Your task to perform on an android device: Search for the new lego star wars 2021 on Target Image 0: 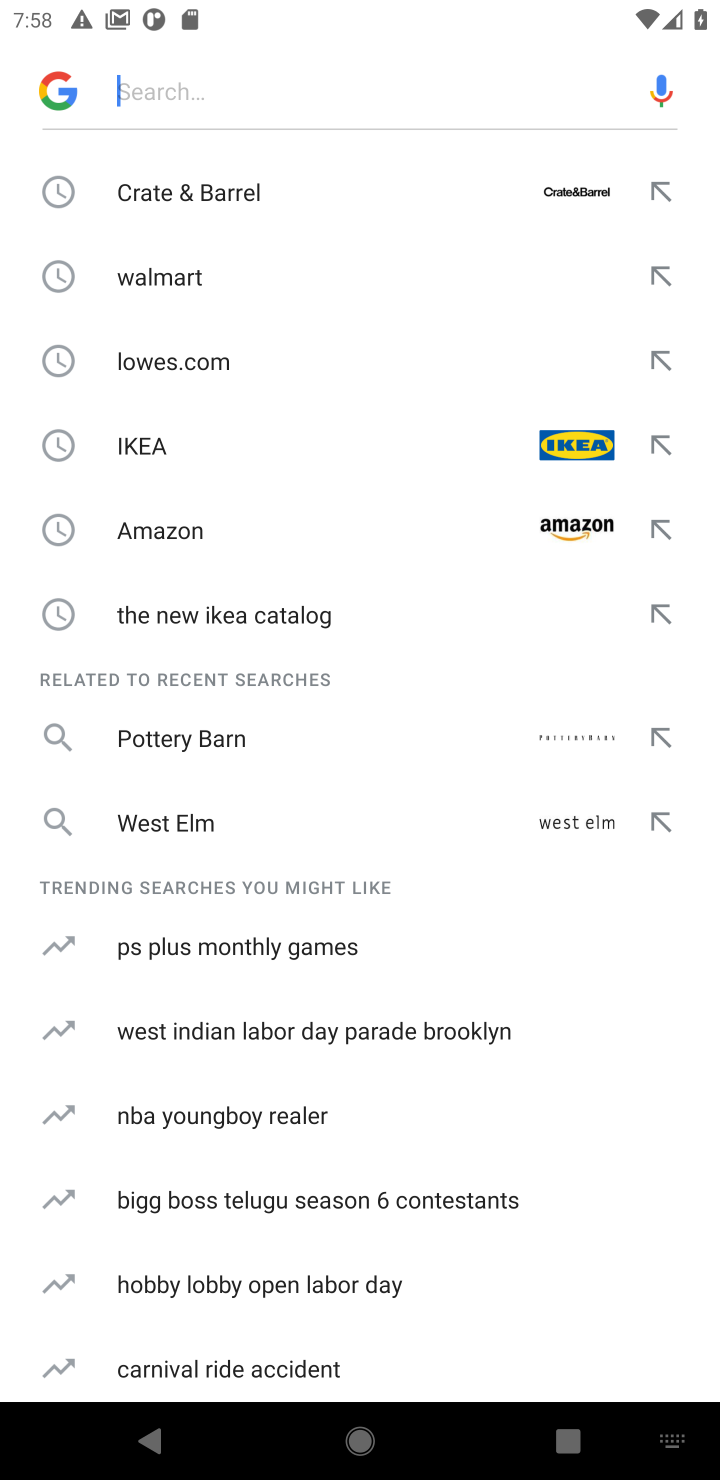
Step 0: type "target"
Your task to perform on an android device: Search for the new lego star wars 2021 on Target Image 1: 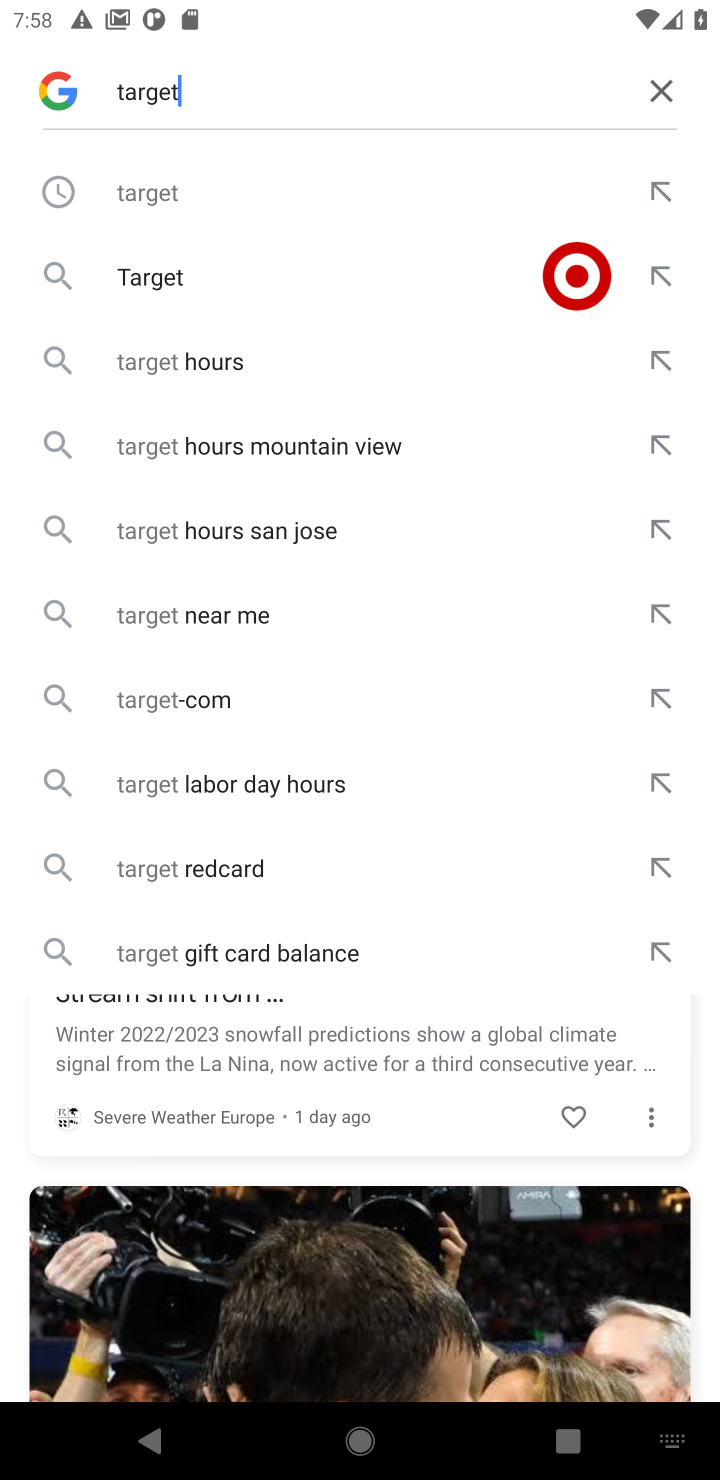
Step 1: click (124, 216)
Your task to perform on an android device: Search for the new lego star wars 2021 on Target Image 2: 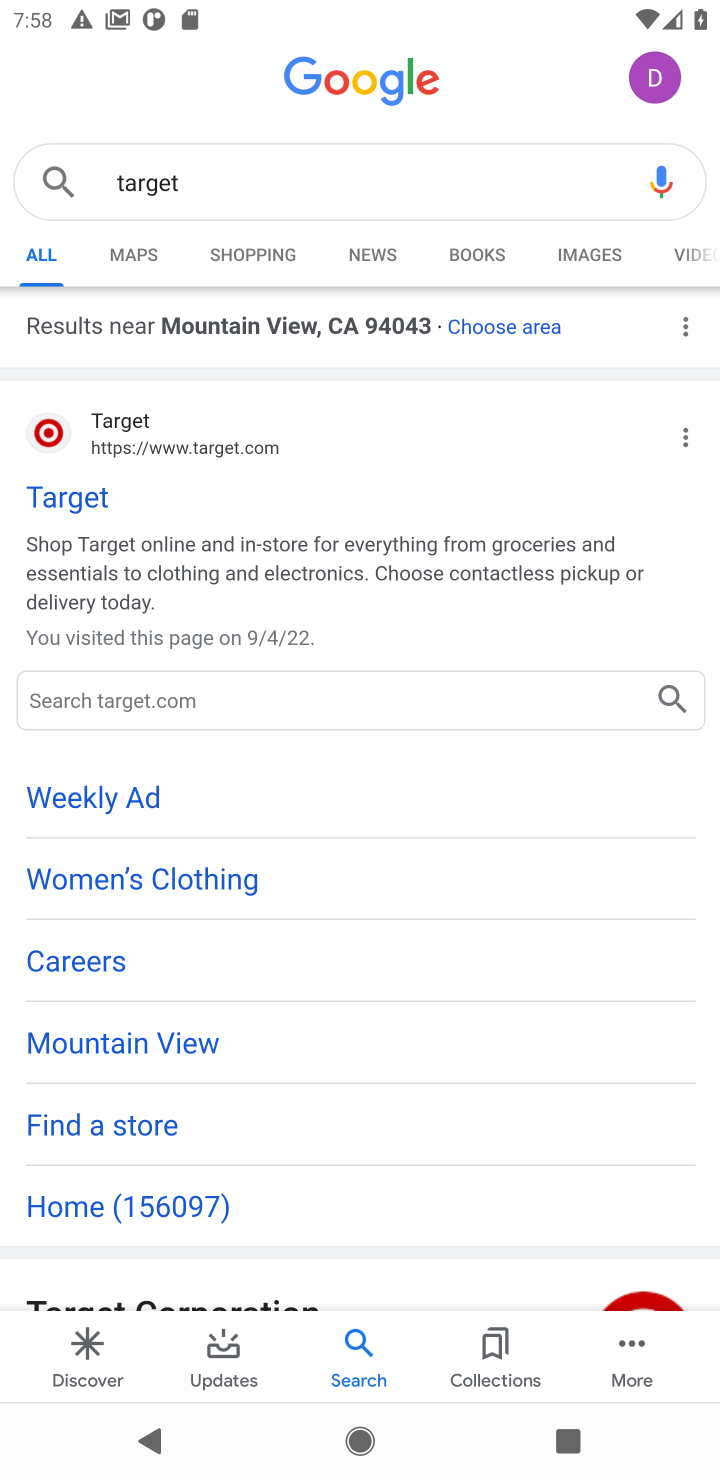
Step 2: click (50, 495)
Your task to perform on an android device: Search for the new lego star wars 2021 on Target Image 3: 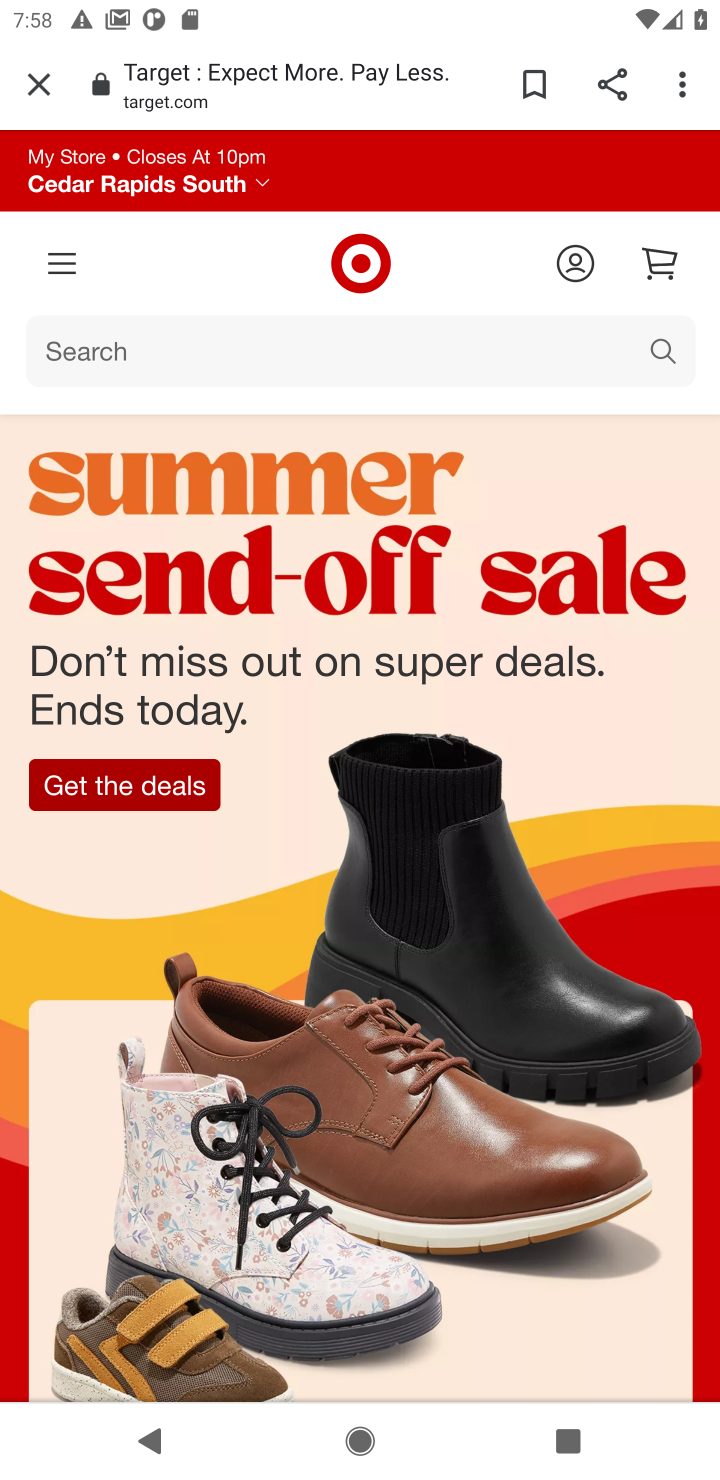
Step 3: click (248, 344)
Your task to perform on an android device: Search for the new lego star wars 2021 on Target Image 4: 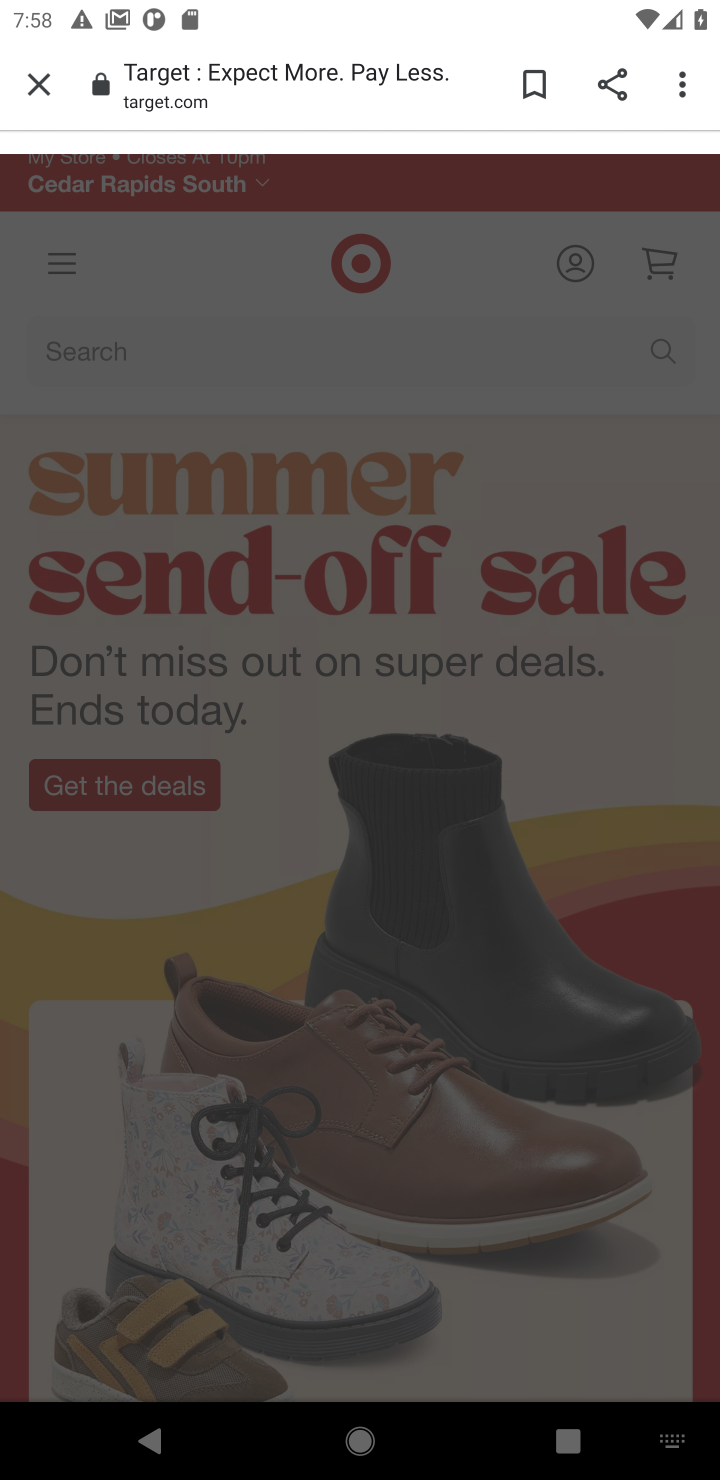
Step 4: click (247, 340)
Your task to perform on an android device: Search for the new lego star wars 2021 on Target Image 5: 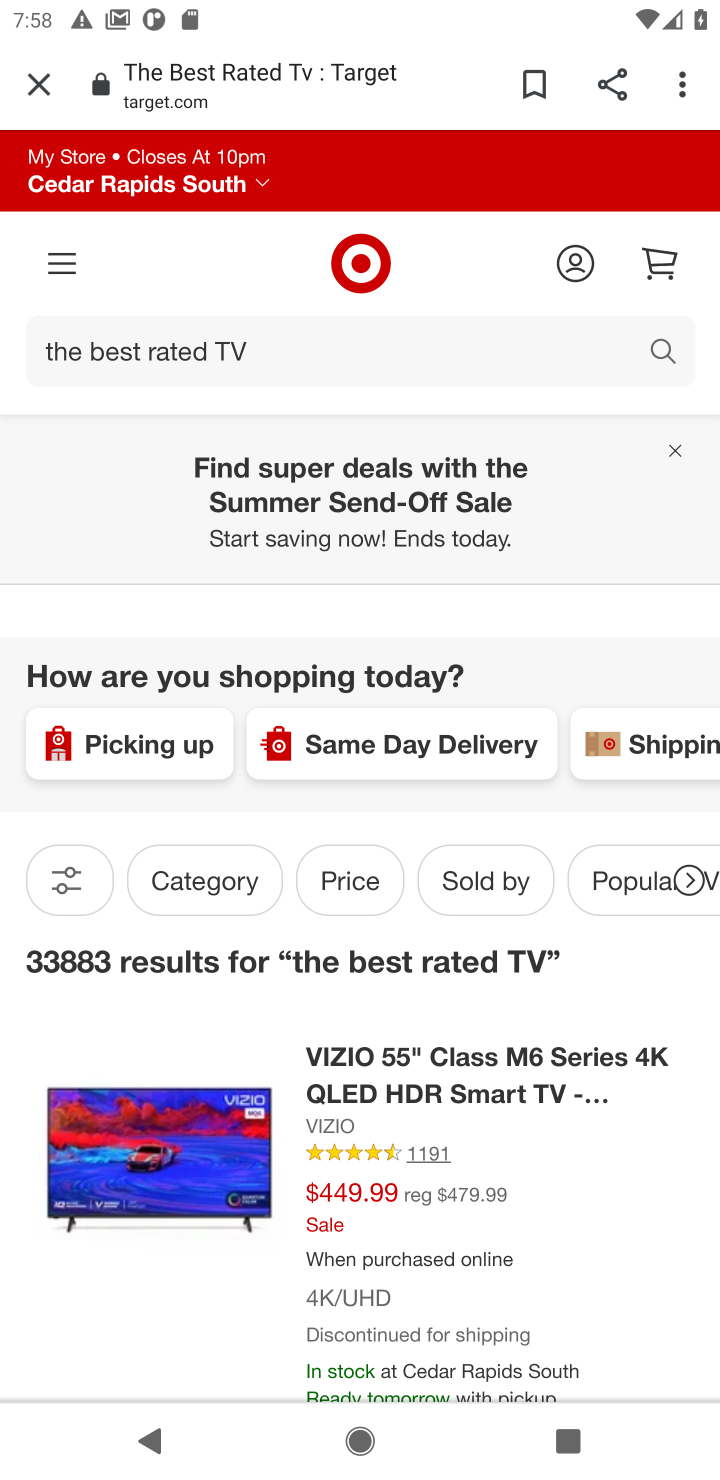
Step 5: click (383, 354)
Your task to perform on an android device: Search for the new lego star wars 2021 on Target Image 6: 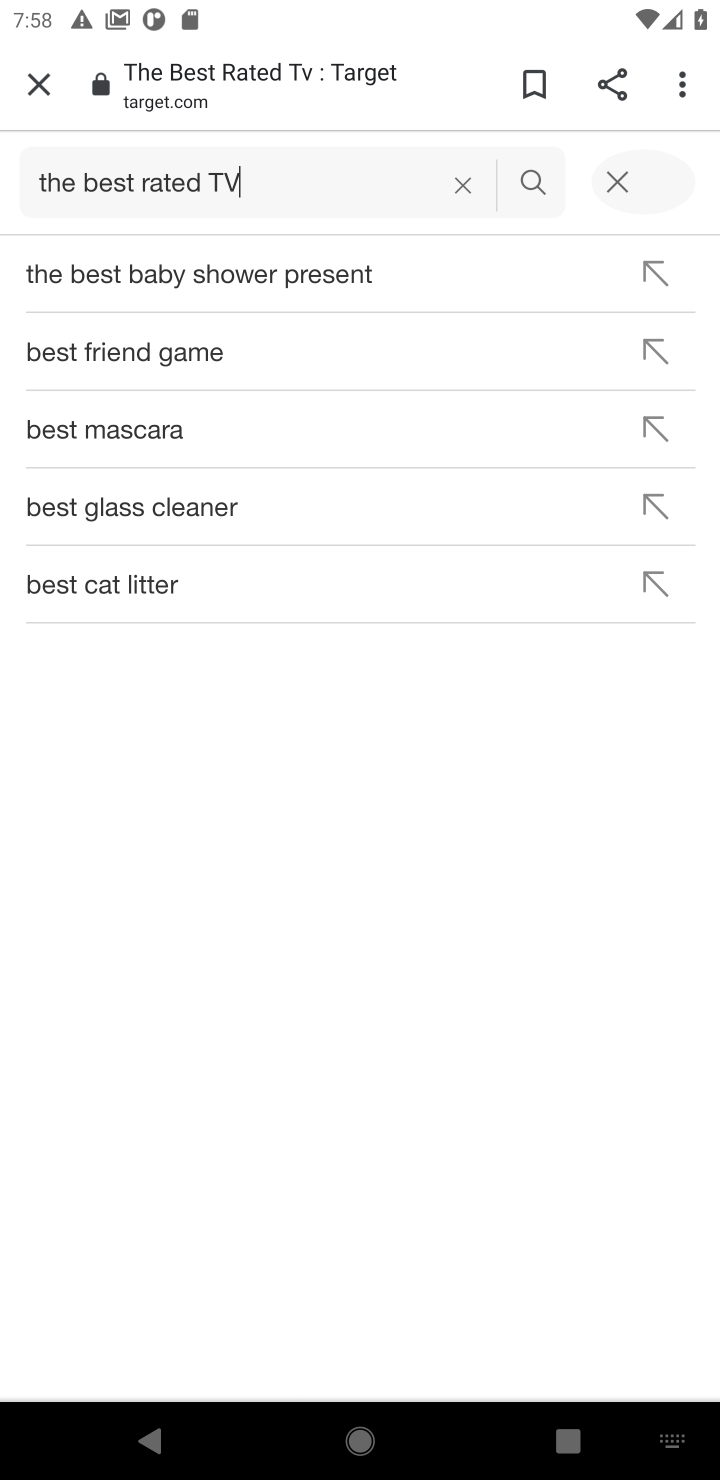
Step 6: click (473, 192)
Your task to perform on an android device: Search for the new lego star wars 2021 on Target Image 7: 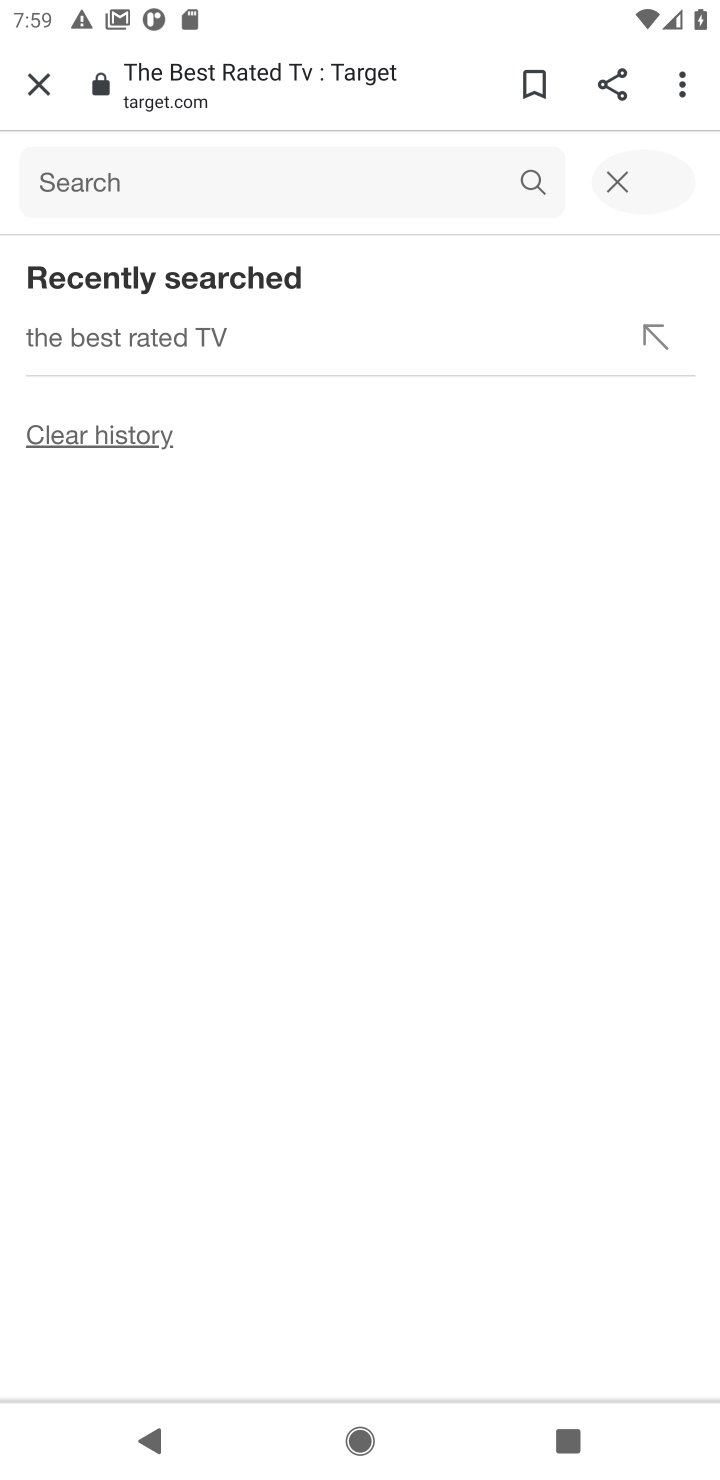
Step 7: click (135, 176)
Your task to perform on an android device: Search for the new lego star wars 2021 on Target Image 8: 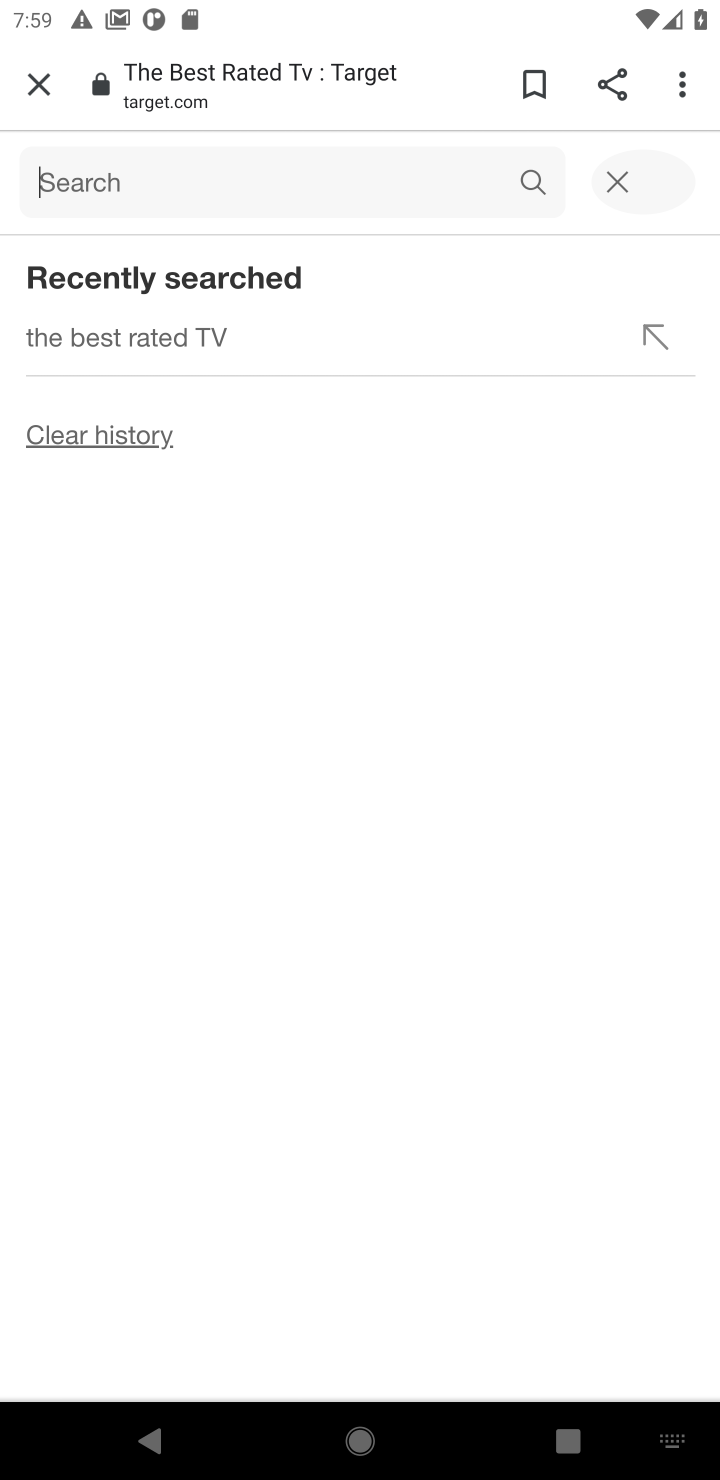
Step 8: type "the new lego star wars 2021"
Your task to perform on an android device: Search for the new lego star wars 2021 on Target Image 9: 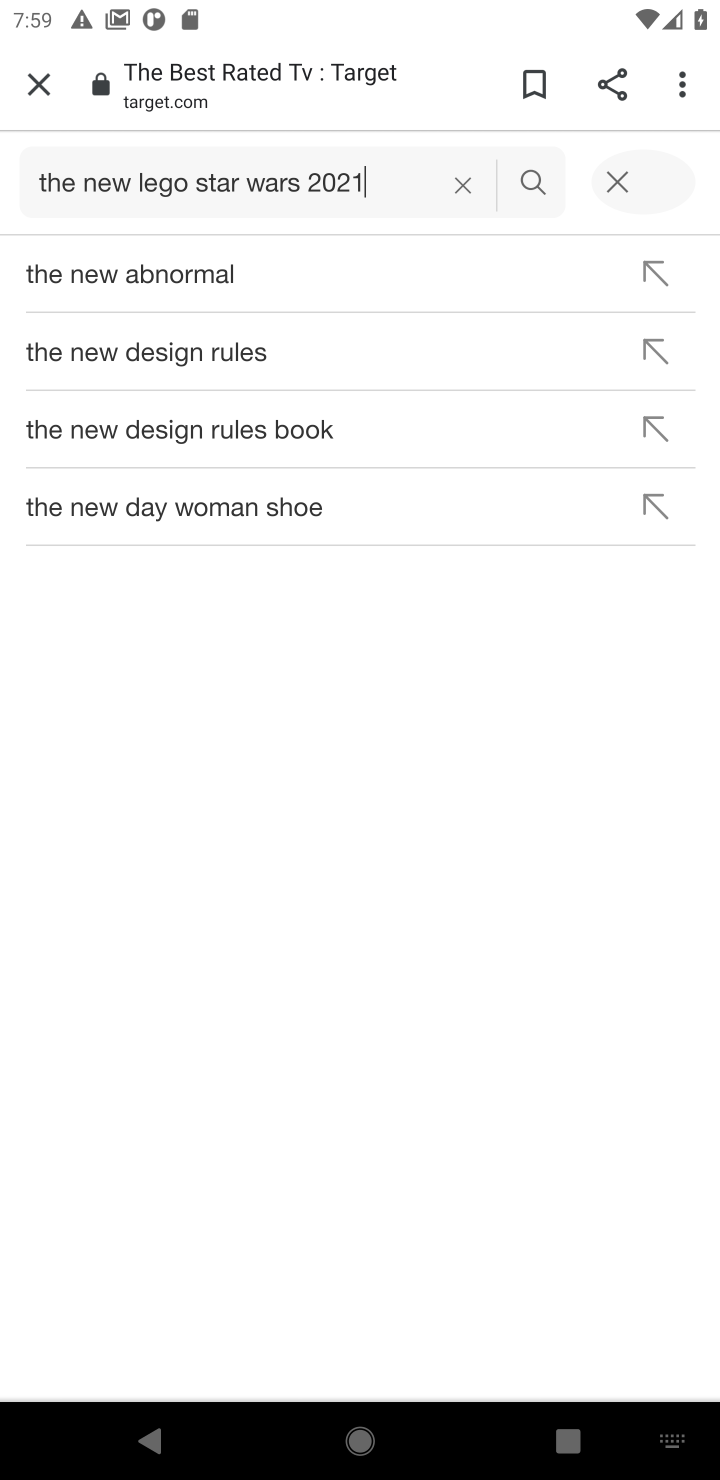
Step 9: click (516, 177)
Your task to perform on an android device: Search for the new lego star wars 2021 on Target Image 10: 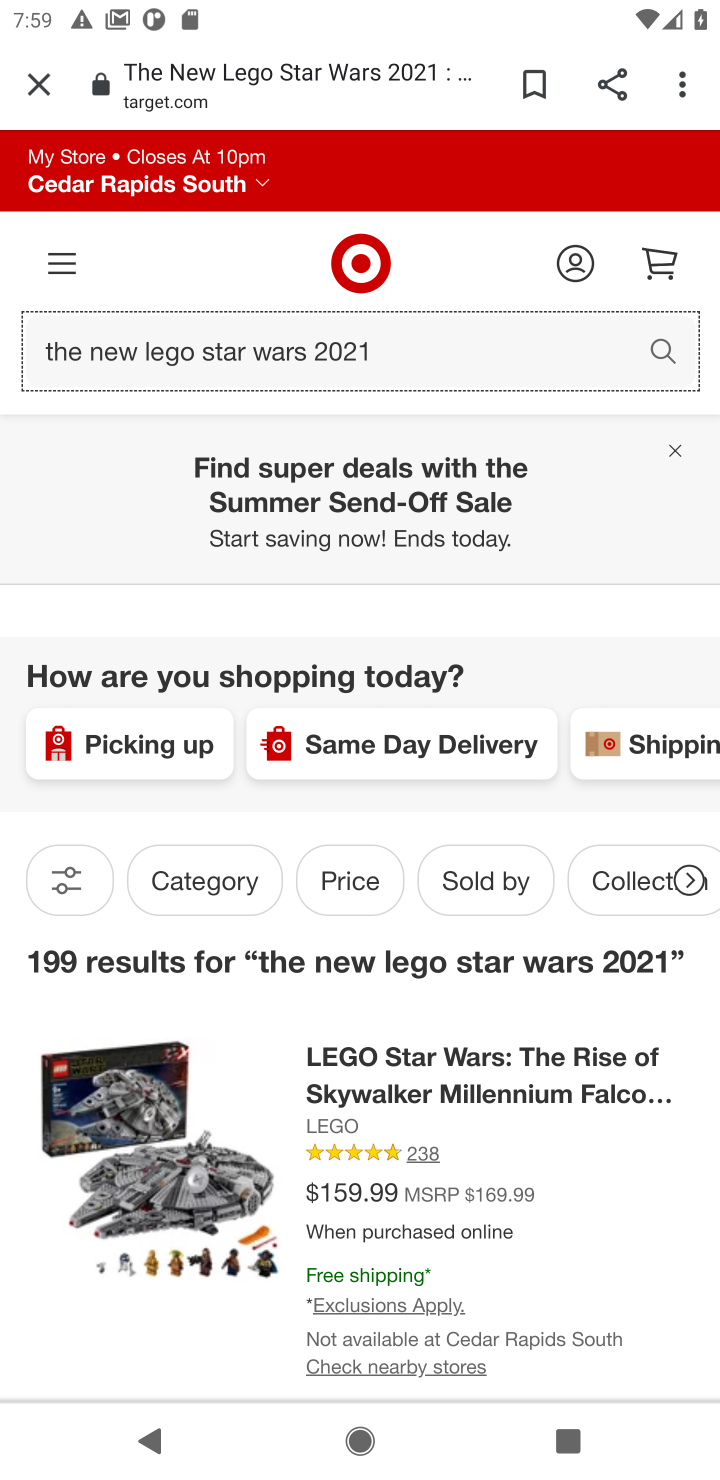
Step 10: task complete